Your task to perform on an android device: Search for sushi restaurants on Maps Image 0: 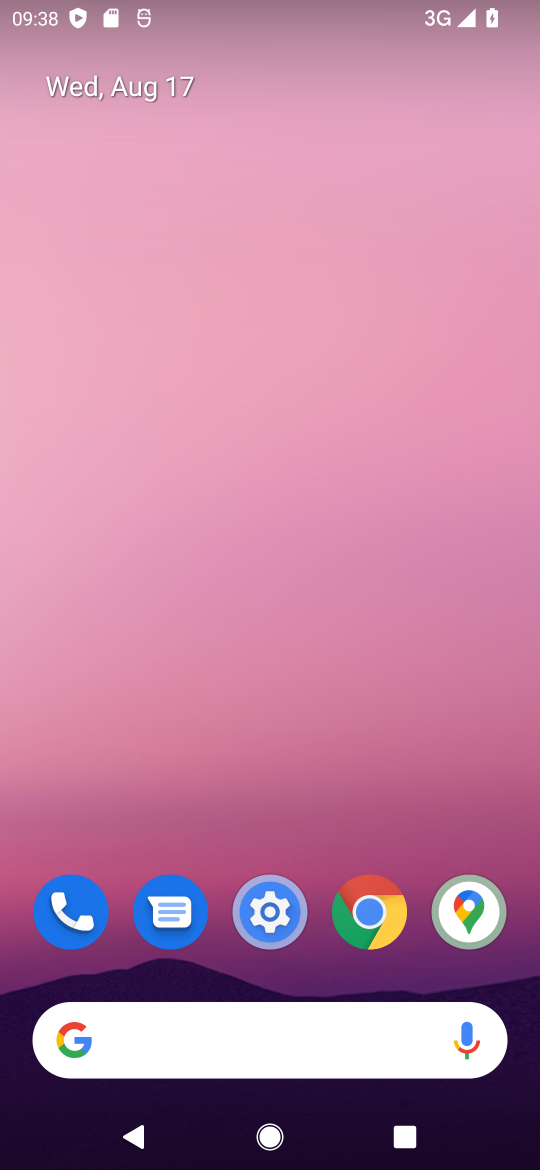
Step 0: click (436, 916)
Your task to perform on an android device: Search for sushi restaurants on Maps Image 1: 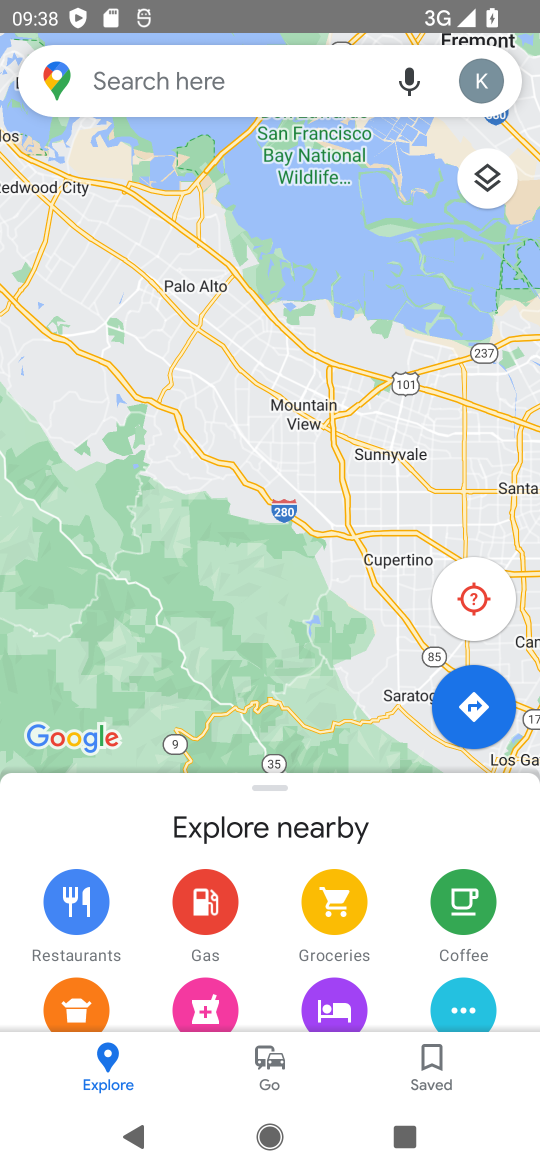
Step 1: click (252, 86)
Your task to perform on an android device: Search for sushi restaurants on Maps Image 2: 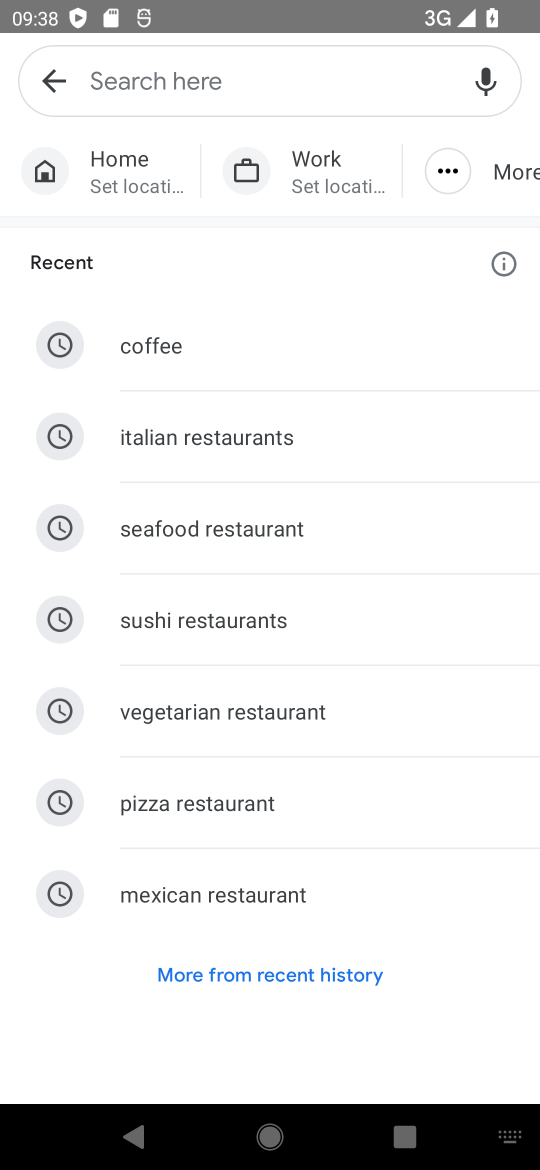
Step 2: click (191, 623)
Your task to perform on an android device: Search for sushi restaurants on Maps Image 3: 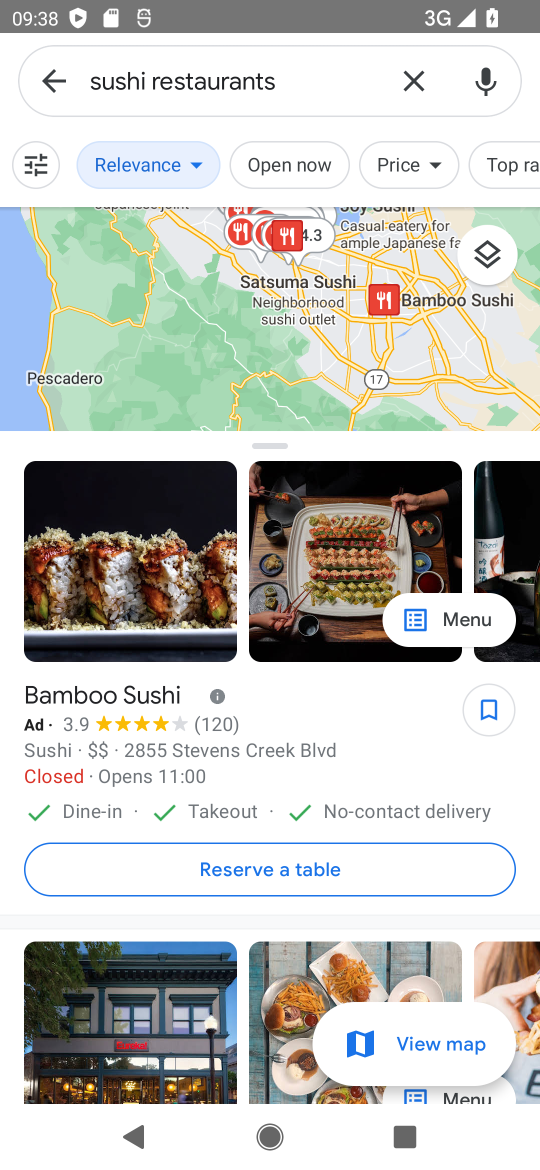
Step 3: task complete